Your task to perform on an android device: clear history in the chrome app Image 0: 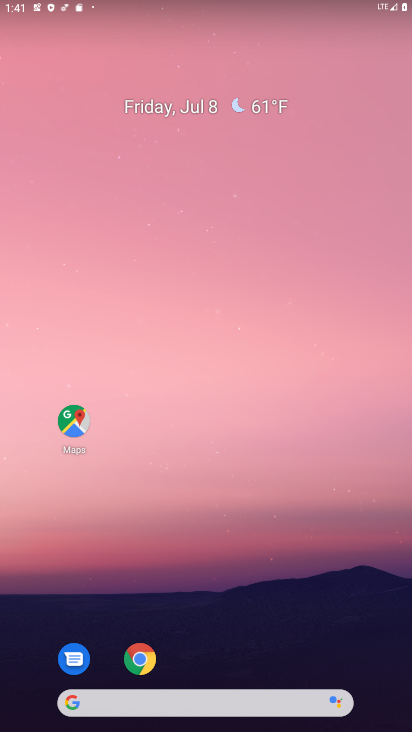
Step 0: drag from (211, 667) to (208, 288)
Your task to perform on an android device: clear history in the chrome app Image 1: 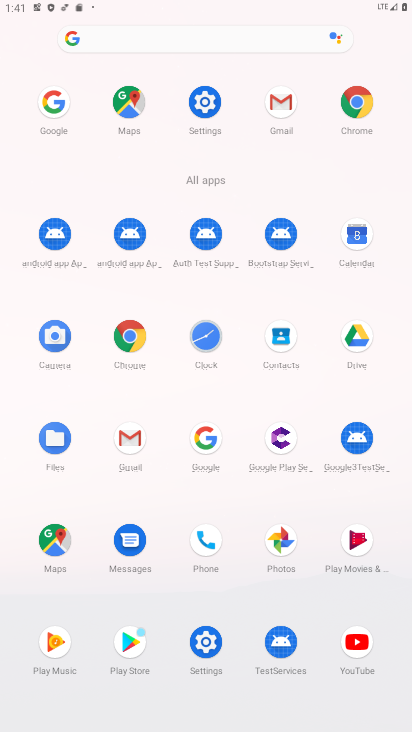
Step 1: click (126, 317)
Your task to perform on an android device: clear history in the chrome app Image 2: 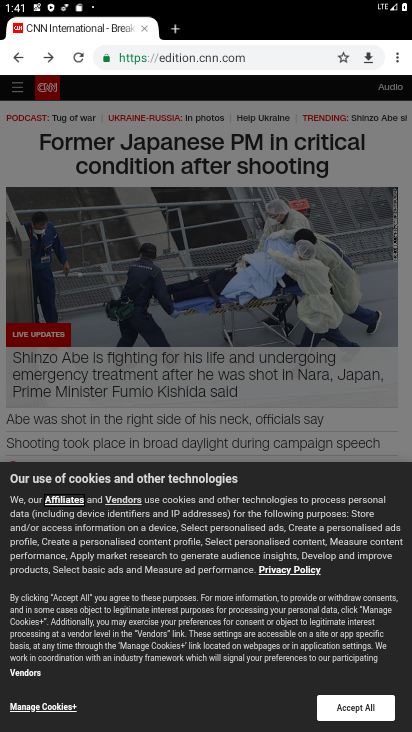
Step 2: click (396, 56)
Your task to perform on an android device: clear history in the chrome app Image 3: 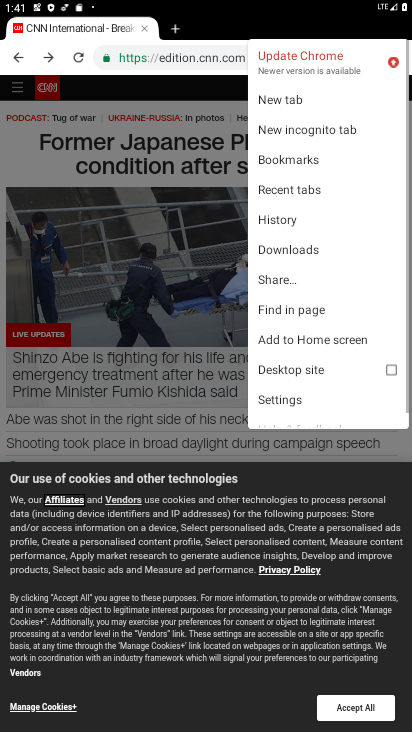
Step 3: click (275, 219)
Your task to perform on an android device: clear history in the chrome app Image 4: 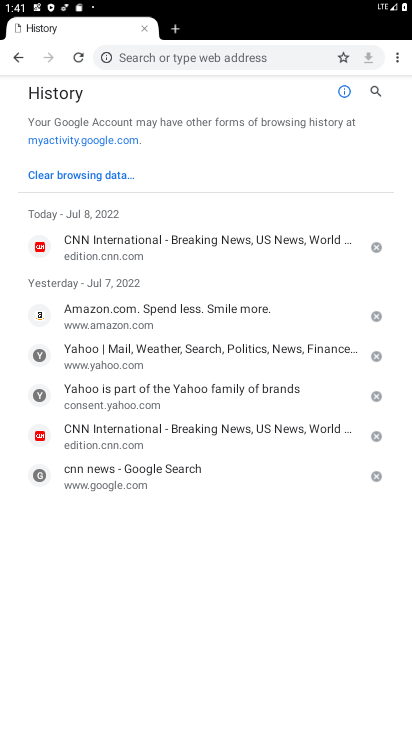
Step 4: click (77, 170)
Your task to perform on an android device: clear history in the chrome app Image 5: 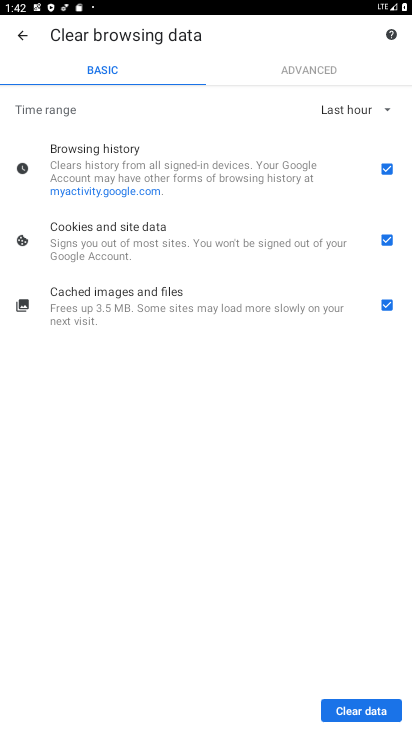
Step 5: press home button
Your task to perform on an android device: clear history in the chrome app Image 6: 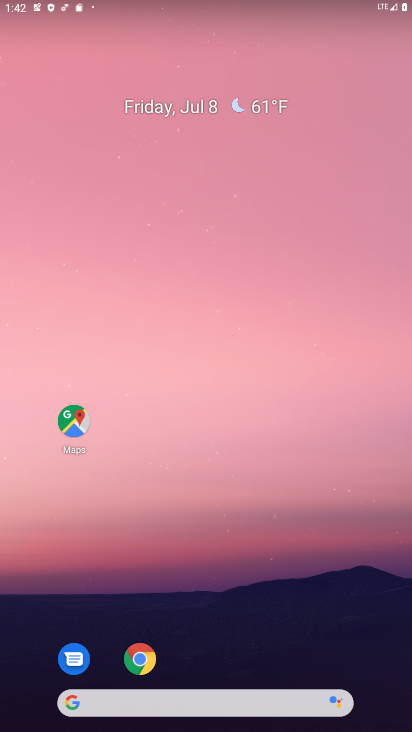
Step 6: click (139, 657)
Your task to perform on an android device: clear history in the chrome app Image 7: 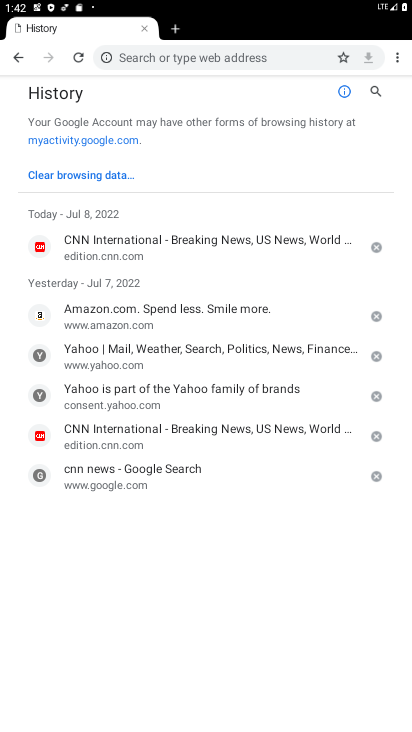
Step 7: click (61, 176)
Your task to perform on an android device: clear history in the chrome app Image 8: 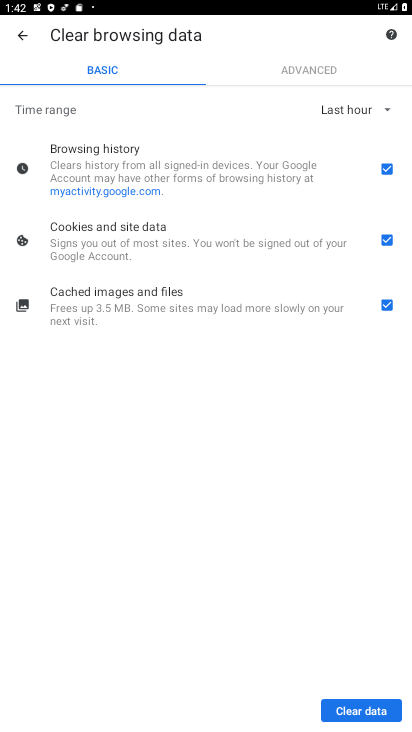
Step 8: click (354, 710)
Your task to perform on an android device: clear history in the chrome app Image 9: 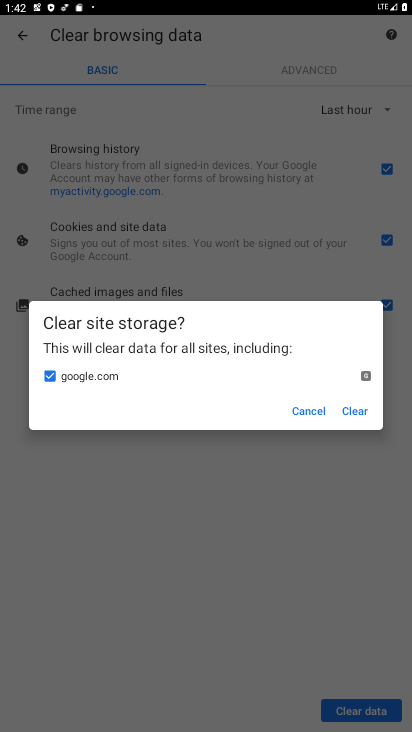
Step 9: click (361, 410)
Your task to perform on an android device: clear history in the chrome app Image 10: 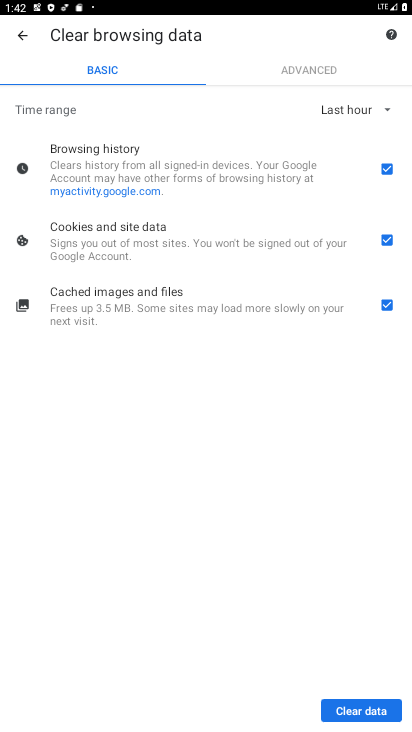
Step 10: task complete